Your task to perform on an android device: Open location settings Image 0: 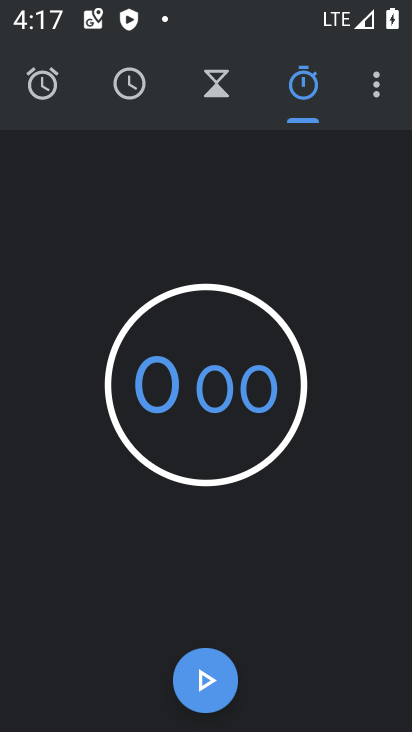
Step 0: press home button
Your task to perform on an android device: Open location settings Image 1: 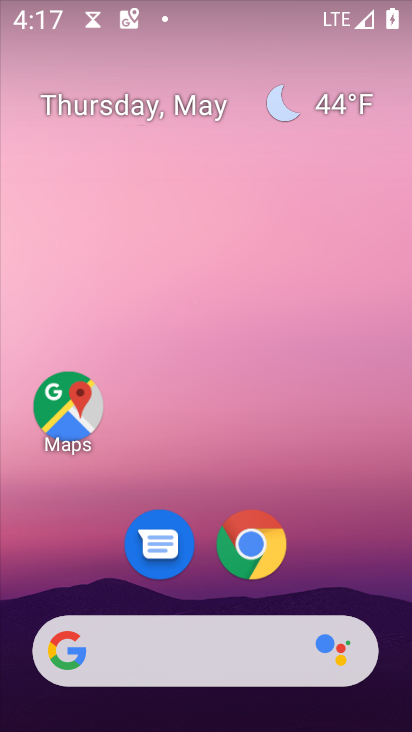
Step 1: drag from (313, 572) to (395, 6)
Your task to perform on an android device: Open location settings Image 2: 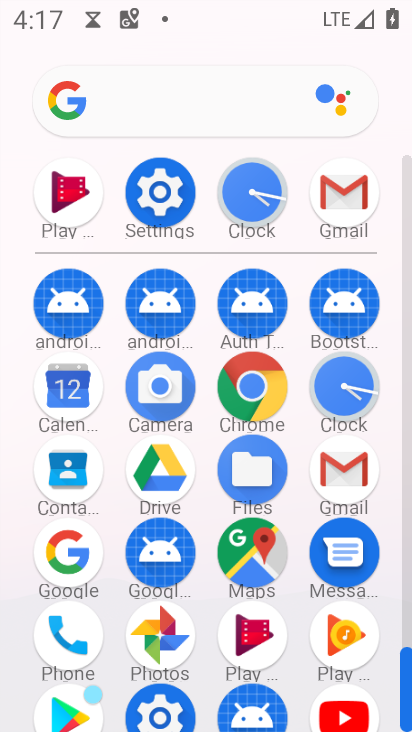
Step 2: click (157, 200)
Your task to perform on an android device: Open location settings Image 3: 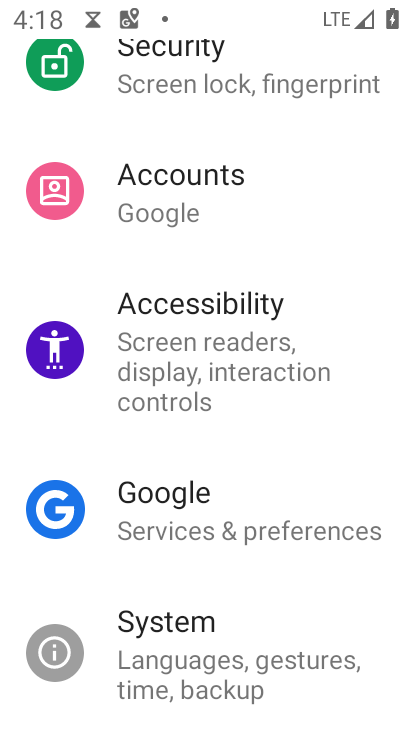
Step 3: drag from (241, 191) to (242, 359)
Your task to perform on an android device: Open location settings Image 4: 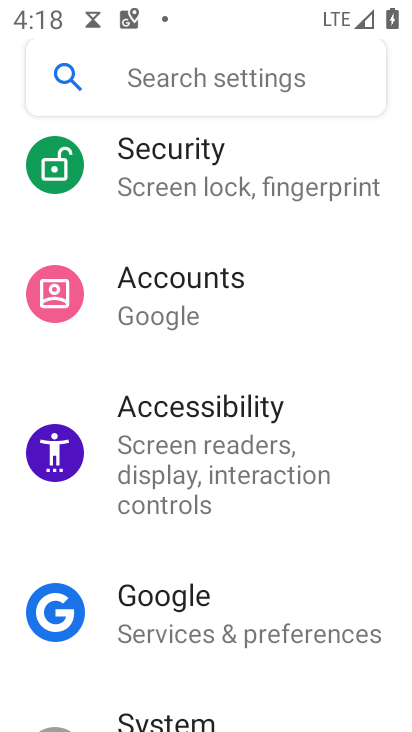
Step 4: drag from (198, 207) to (162, 390)
Your task to perform on an android device: Open location settings Image 5: 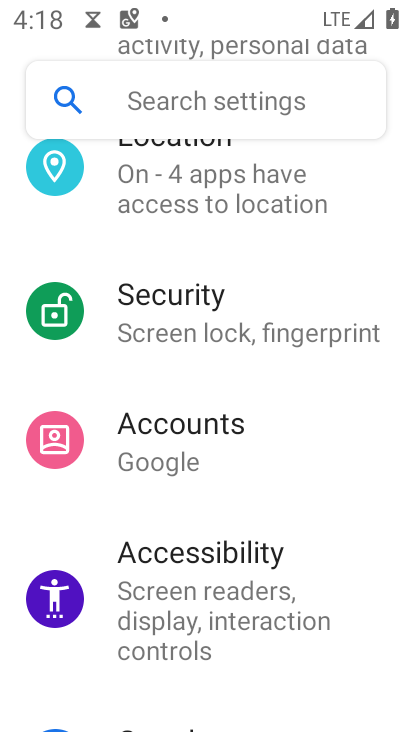
Step 5: drag from (187, 275) to (197, 391)
Your task to perform on an android device: Open location settings Image 6: 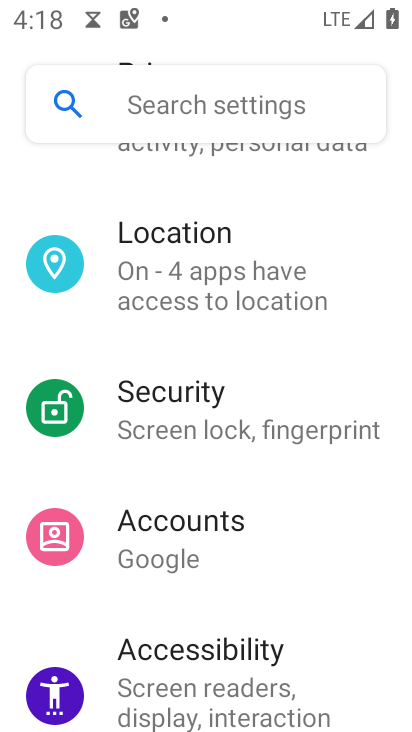
Step 6: drag from (200, 278) to (198, 397)
Your task to perform on an android device: Open location settings Image 7: 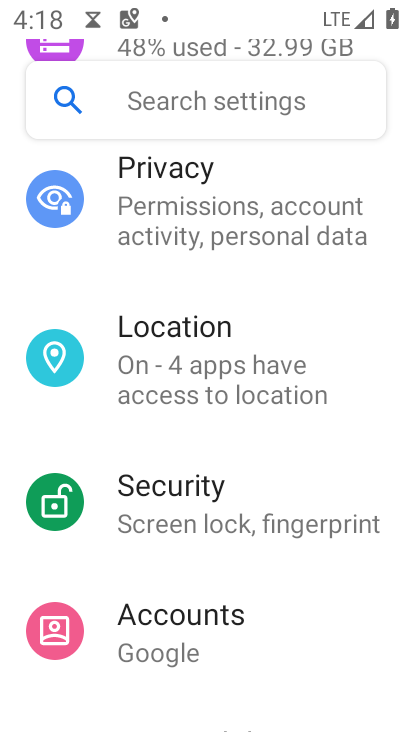
Step 7: click (166, 336)
Your task to perform on an android device: Open location settings Image 8: 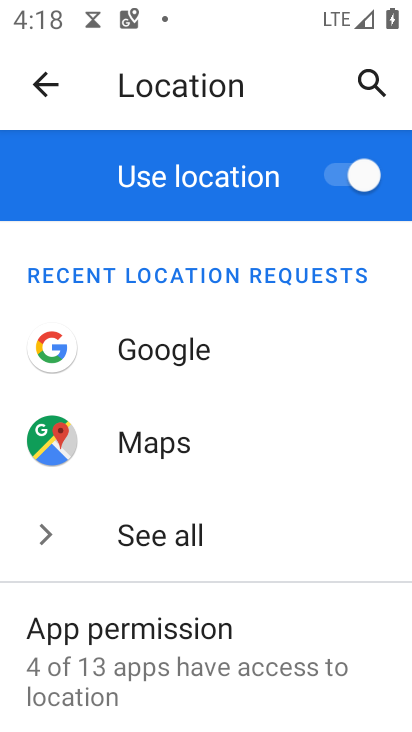
Step 8: task complete